Your task to perform on an android device: Search for Mexican restaurants on Maps Image 0: 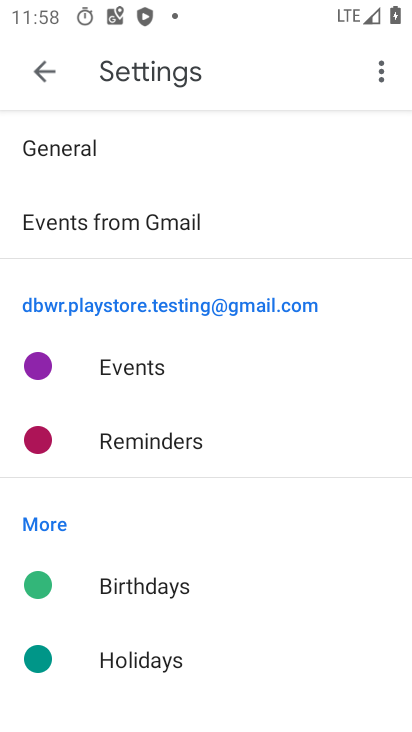
Step 0: press home button
Your task to perform on an android device: Search for Mexican restaurants on Maps Image 1: 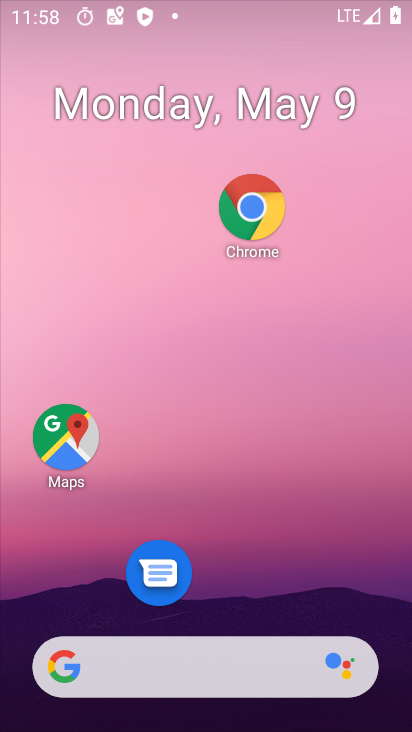
Step 1: drag from (208, 595) to (286, 1)
Your task to perform on an android device: Search for Mexican restaurants on Maps Image 2: 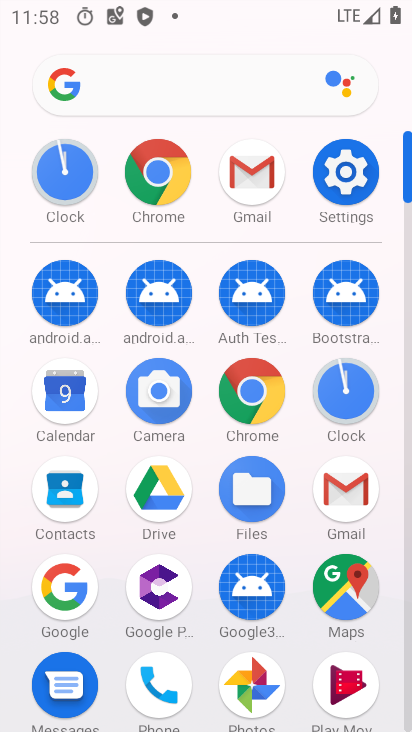
Step 2: click (334, 607)
Your task to perform on an android device: Search for Mexican restaurants on Maps Image 3: 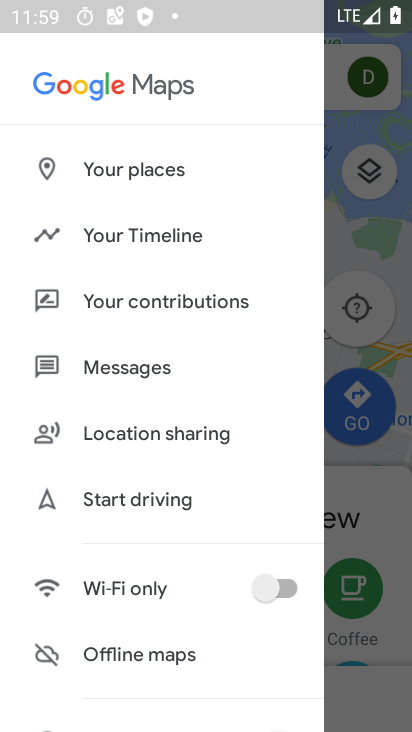
Step 3: click (370, 428)
Your task to perform on an android device: Search for Mexican restaurants on Maps Image 4: 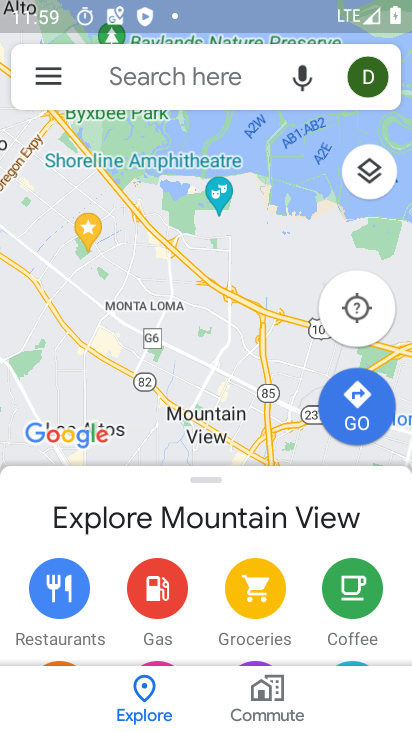
Step 4: click (241, 81)
Your task to perform on an android device: Search for Mexican restaurants on Maps Image 5: 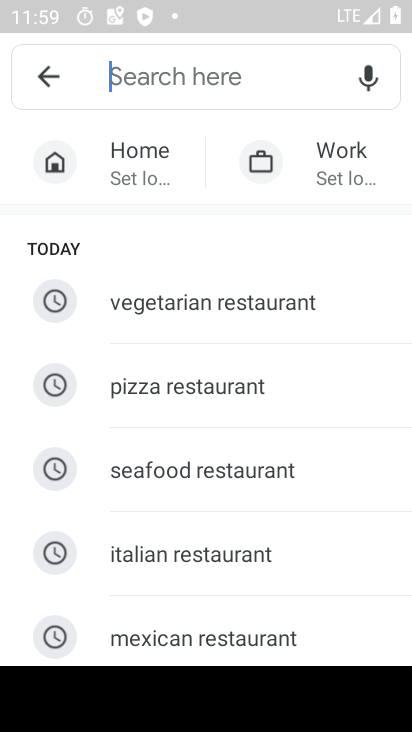
Step 5: click (195, 621)
Your task to perform on an android device: Search for Mexican restaurants on Maps Image 6: 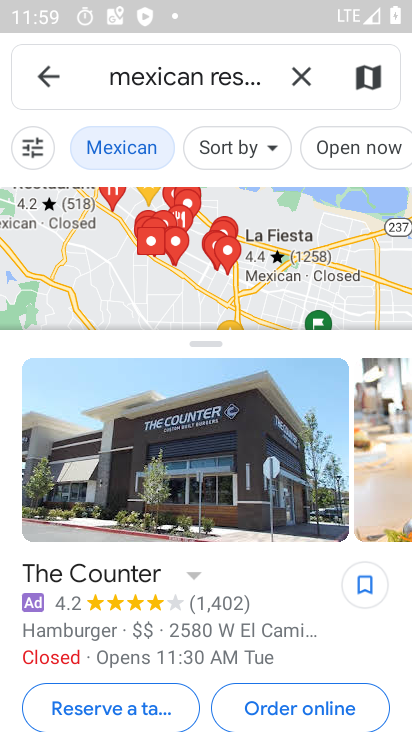
Step 6: task complete